Your task to perform on an android device: Turn off the flashlight Image 0: 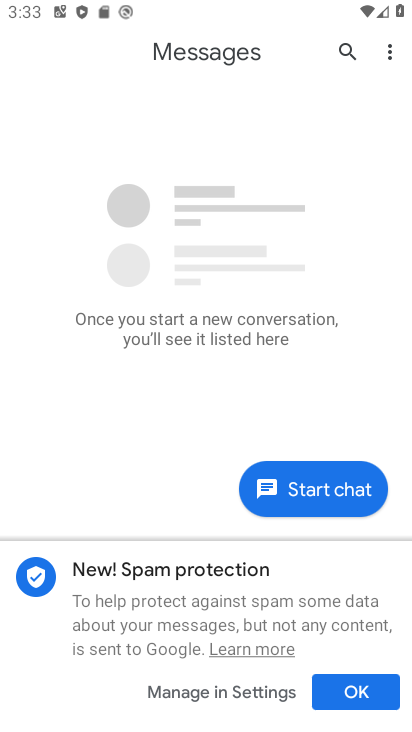
Step 0: drag from (215, 6) to (319, 560)
Your task to perform on an android device: Turn off the flashlight Image 1: 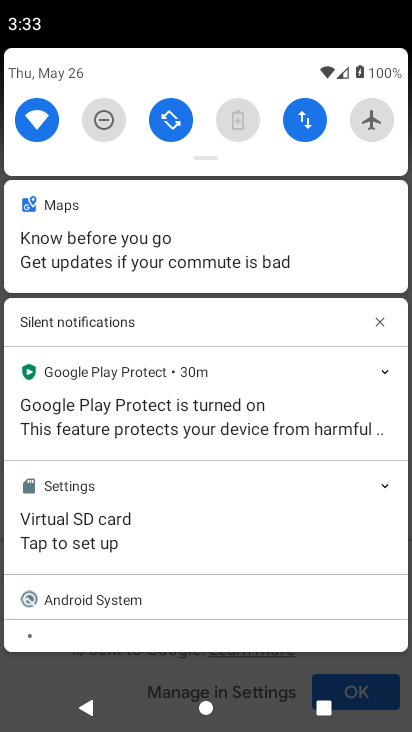
Step 1: drag from (333, 152) to (315, 676)
Your task to perform on an android device: Turn off the flashlight Image 2: 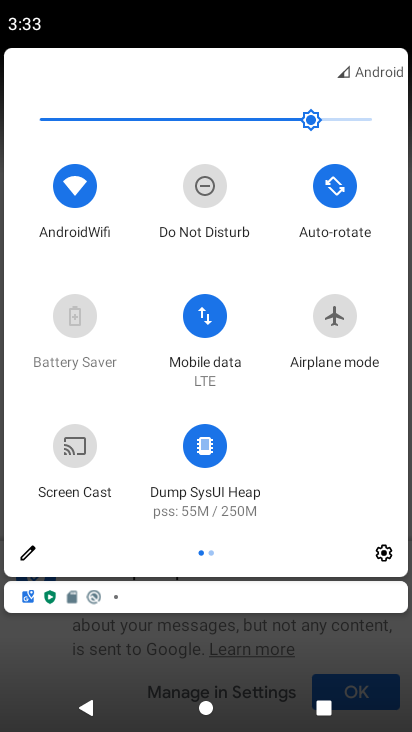
Step 2: drag from (318, 472) to (2, 513)
Your task to perform on an android device: Turn off the flashlight Image 3: 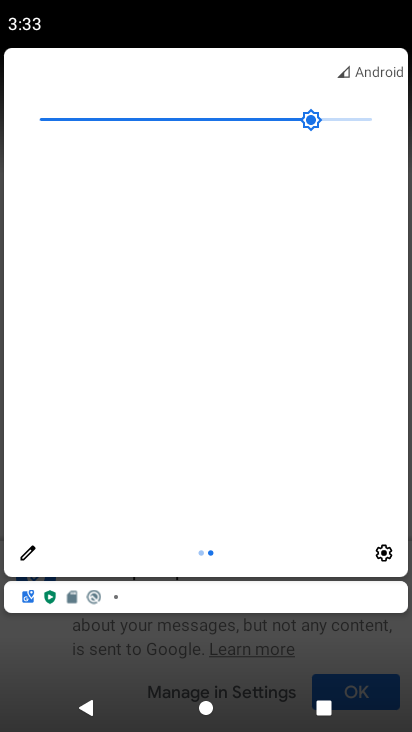
Step 3: click (29, 556)
Your task to perform on an android device: Turn off the flashlight Image 4: 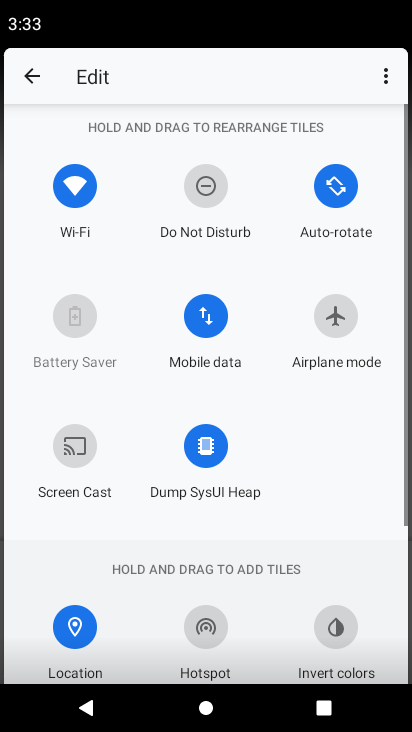
Step 4: task complete